Your task to perform on an android device: turn notification dots off Image 0: 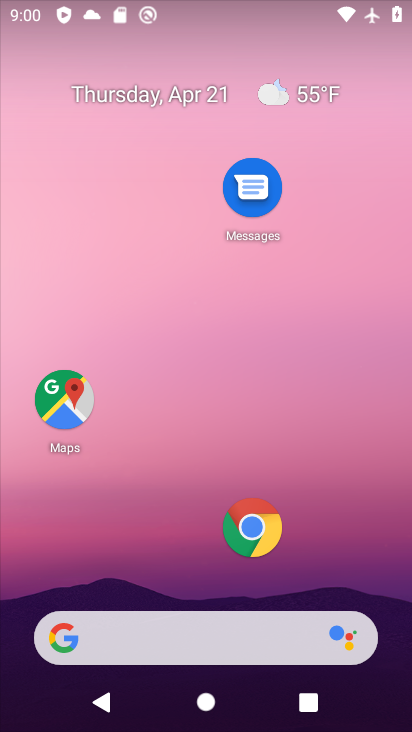
Step 0: drag from (176, 634) to (314, 98)
Your task to perform on an android device: turn notification dots off Image 1: 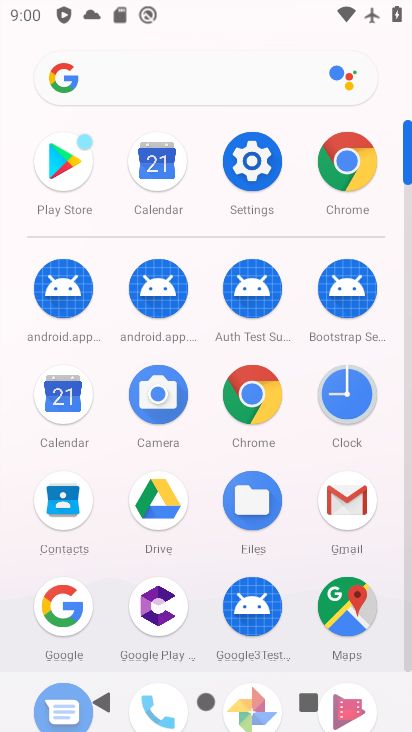
Step 1: click (262, 178)
Your task to perform on an android device: turn notification dots off Image 2: 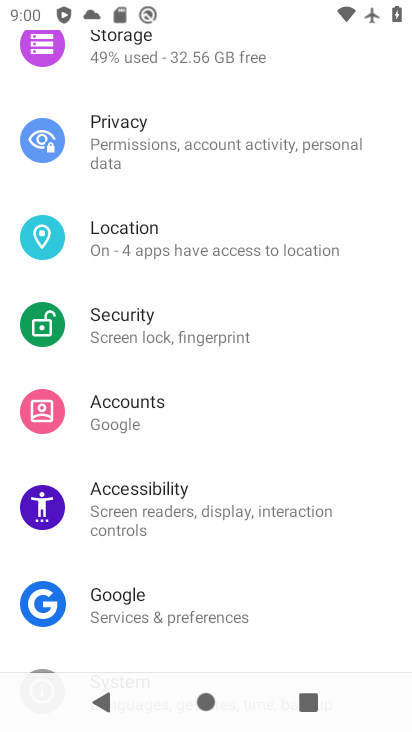
Step 2: drag from (297, 215) to (211, 607)
Your task to perform on an android device: turn notification dots off Image 3: 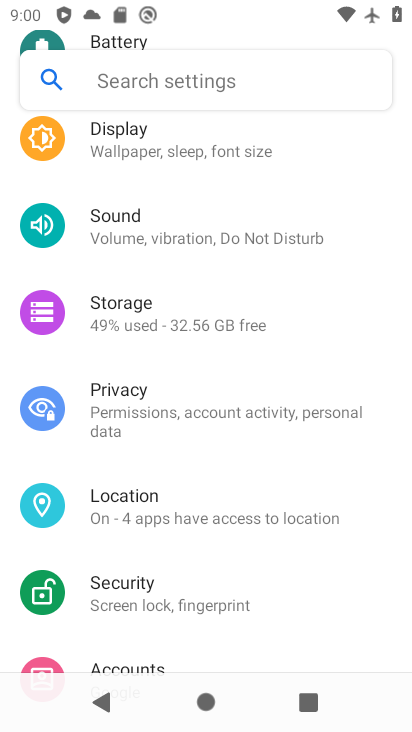
Step 3: drag from (252, 378) to (186, 672)
Your task to perform on an android device: turn notification dots off Image 4: 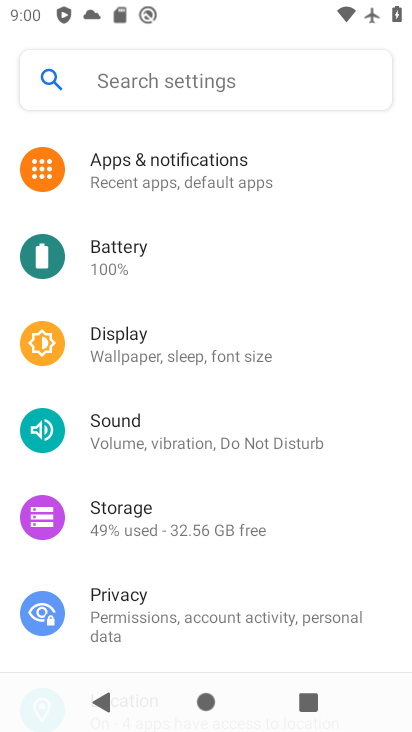
Step 4: click (199, 163)
Your task to perform on an android device: turn notification dots off Image 5: 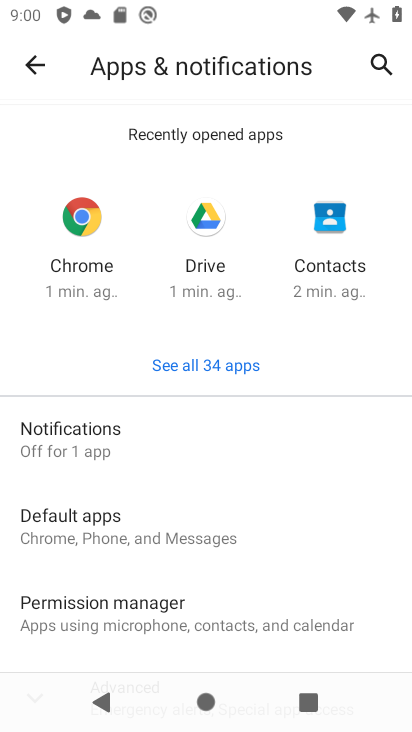
Step 5: click (102, 445)
Your task to perform on an android device: turn notification dots off Image 6: 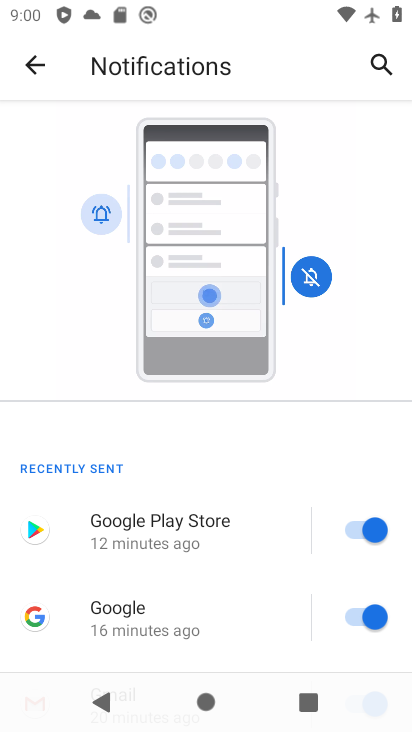
Step 6: drag from (231, 581) to (367, 115)
Your task to perform on an android device: turn notification dots off Image 7: 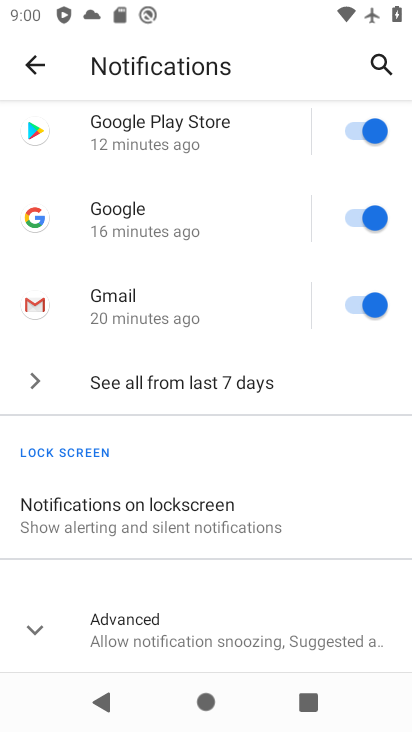
Step 7: drag from (215, 552) to (346, 231)
Your task to perform on an android device: turn notification dots off Image 8: 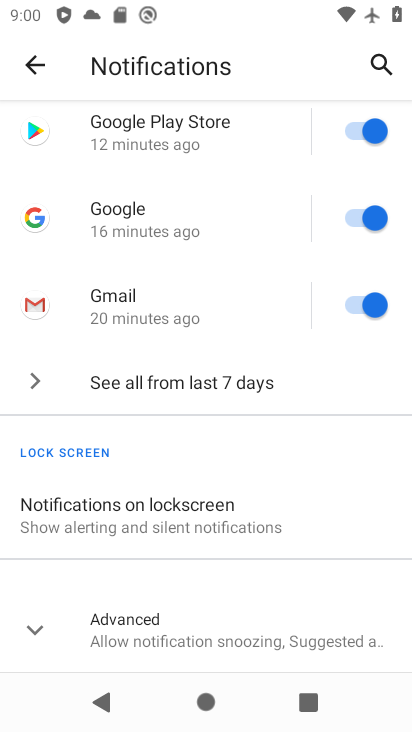
Step 8: click (143, 617)
Your task to perform on an android device: turn notification dots off Image 9: 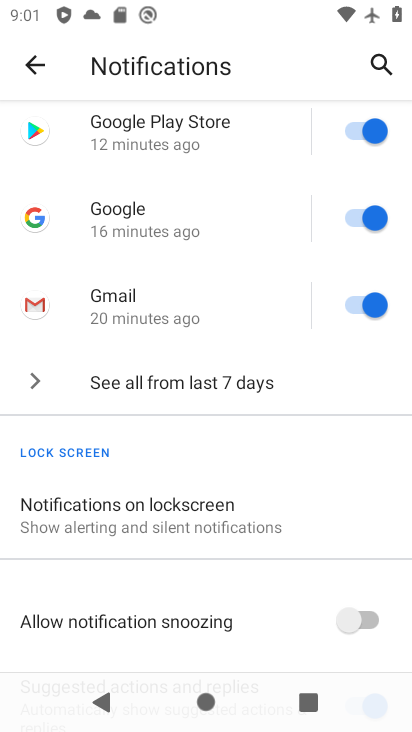
Step 9: drag from (206, 580) to (356, 150)
Your task to perform on an android device: turn notification dots off Image 10: 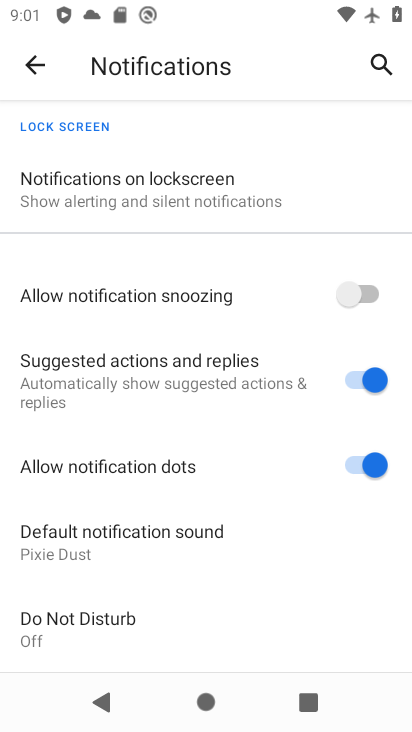
Step 10: click (354, 468)
Your task to perform on an android device: turn notification dots off Image 11: 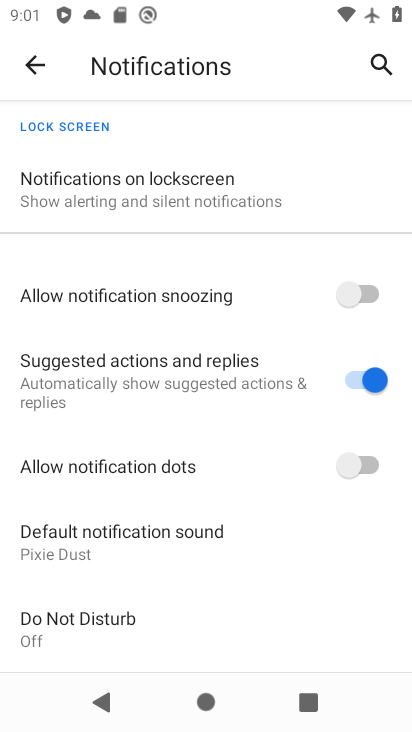
Step 11: task complete